Your task to perform on an android device: change the clock style Image 0: 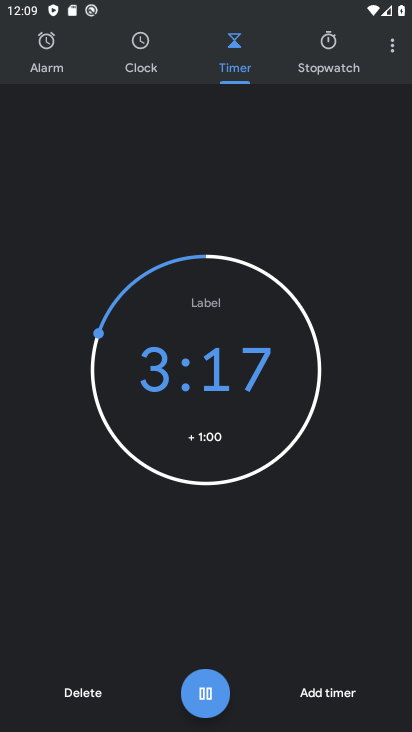
Step 0: click (396, 46)
Your task to perform on an android device: change the clock style Image 1: 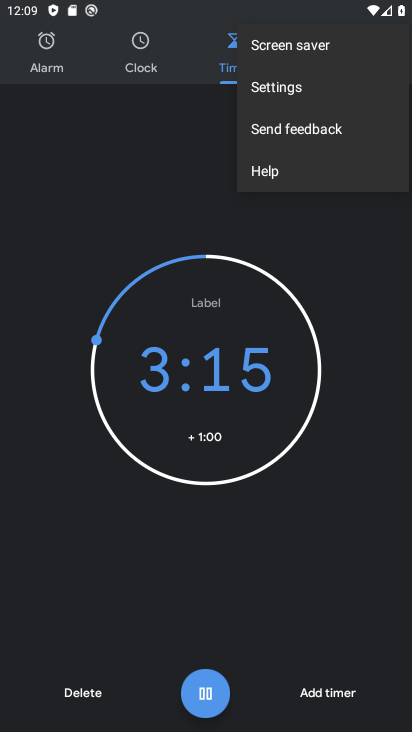
Step 1: click (256, 93)
Your task to perform on an android device: change the clock style Image 2: 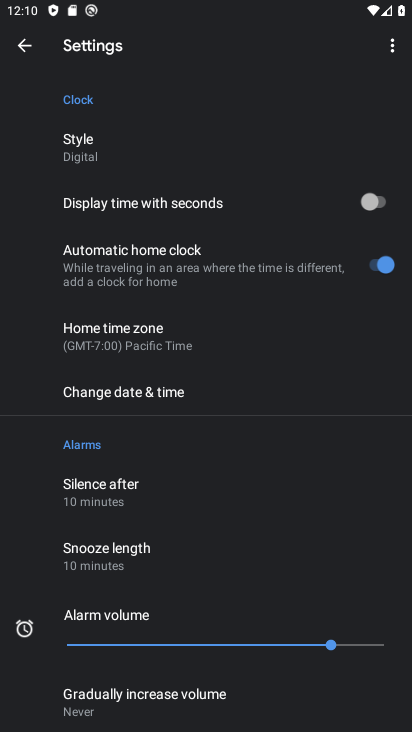
Step 2: click (85, 142)
Your task to perform on an android device: change the clock style Image 3: 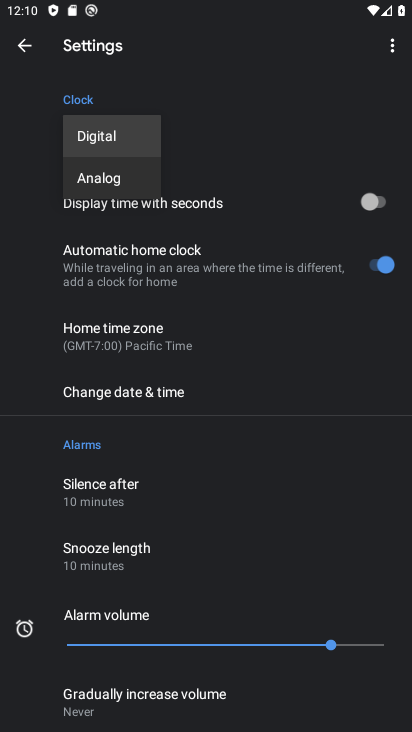
Step 3: click (104, 172)
Your task to perform on an android device: change the clock style Image 4: 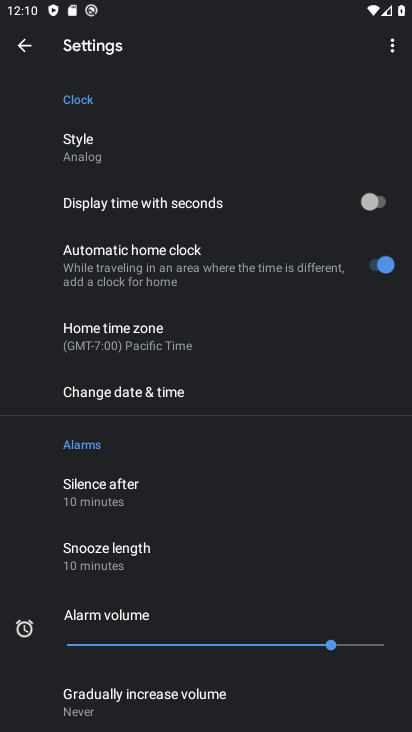
Step 4: task complete